Your task to perform on an android device: choose inbox layout in the gmail app Image 0: 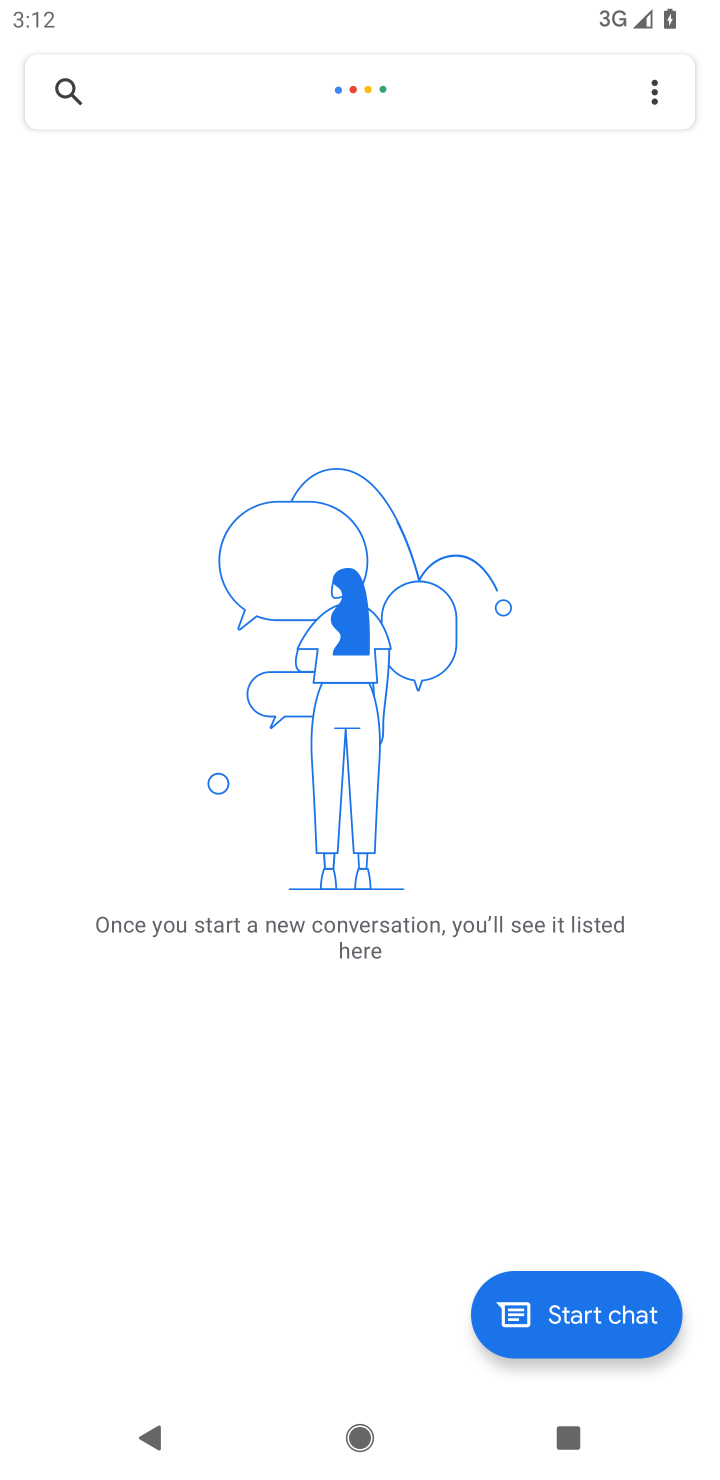
Step 0: press home button
Your task to perform on an android device: choose inbox layout in the gmail app Image 1: 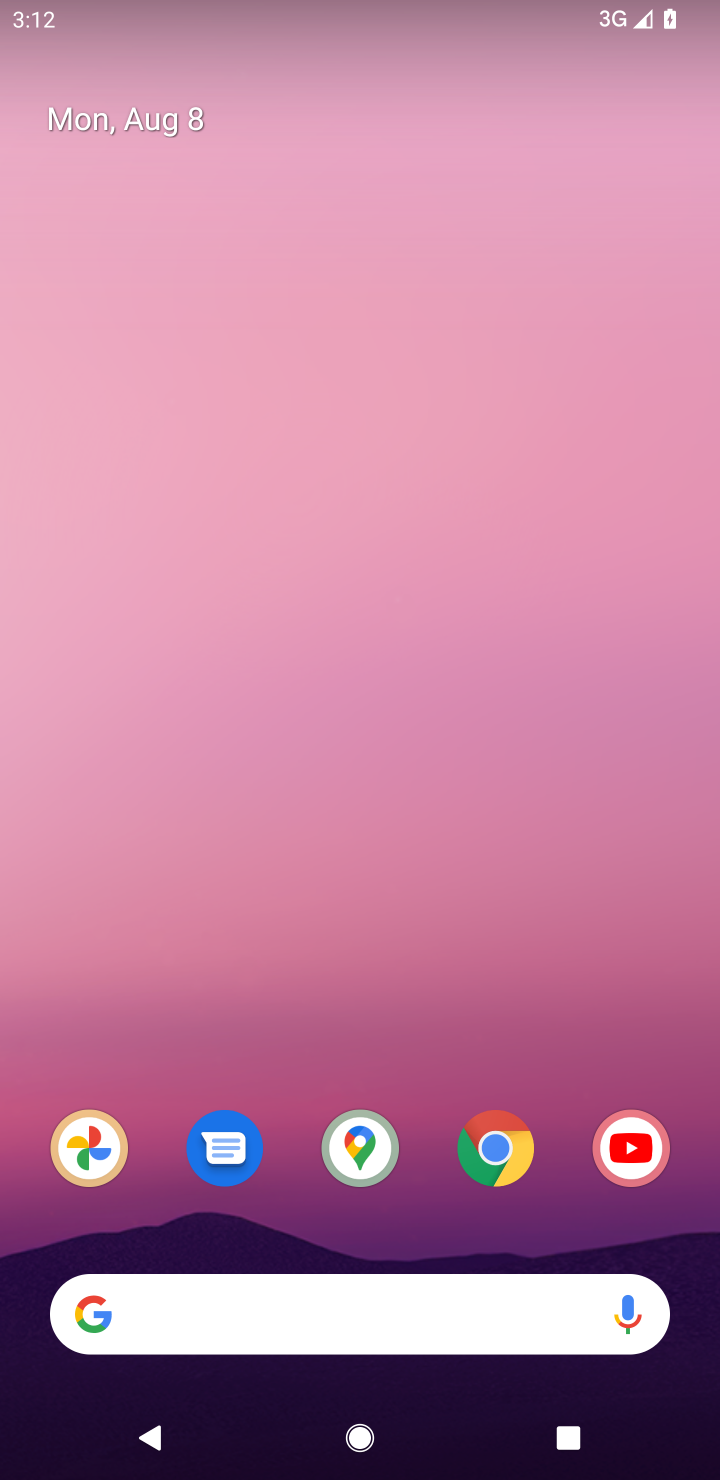
Step 1: drag from (353, 1068) to (328, 472)
Your task to perform on an android device: choose inbox layout in the gmail app Image 2: 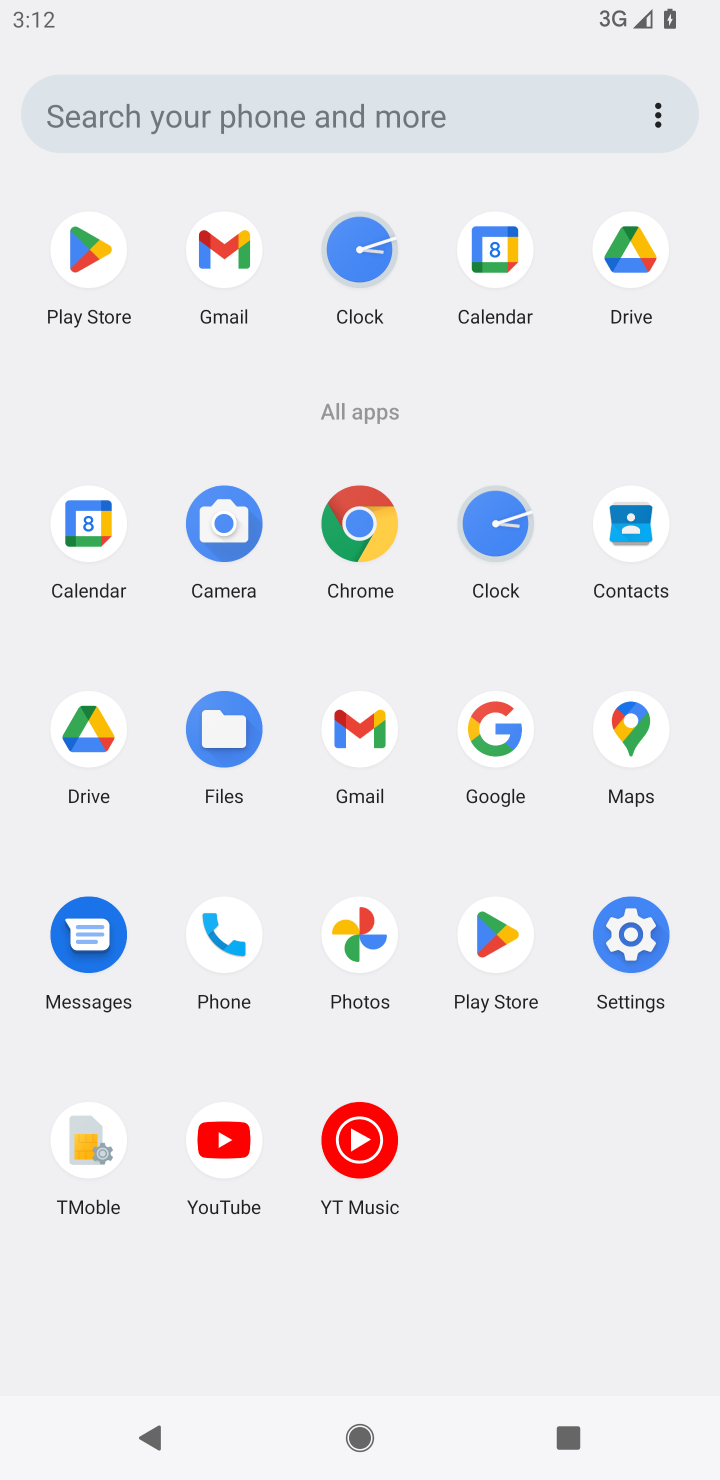
Step 2: click (362, 746)
Your task to perform on an android device: choose inbox layout in the gmail app Image 3: 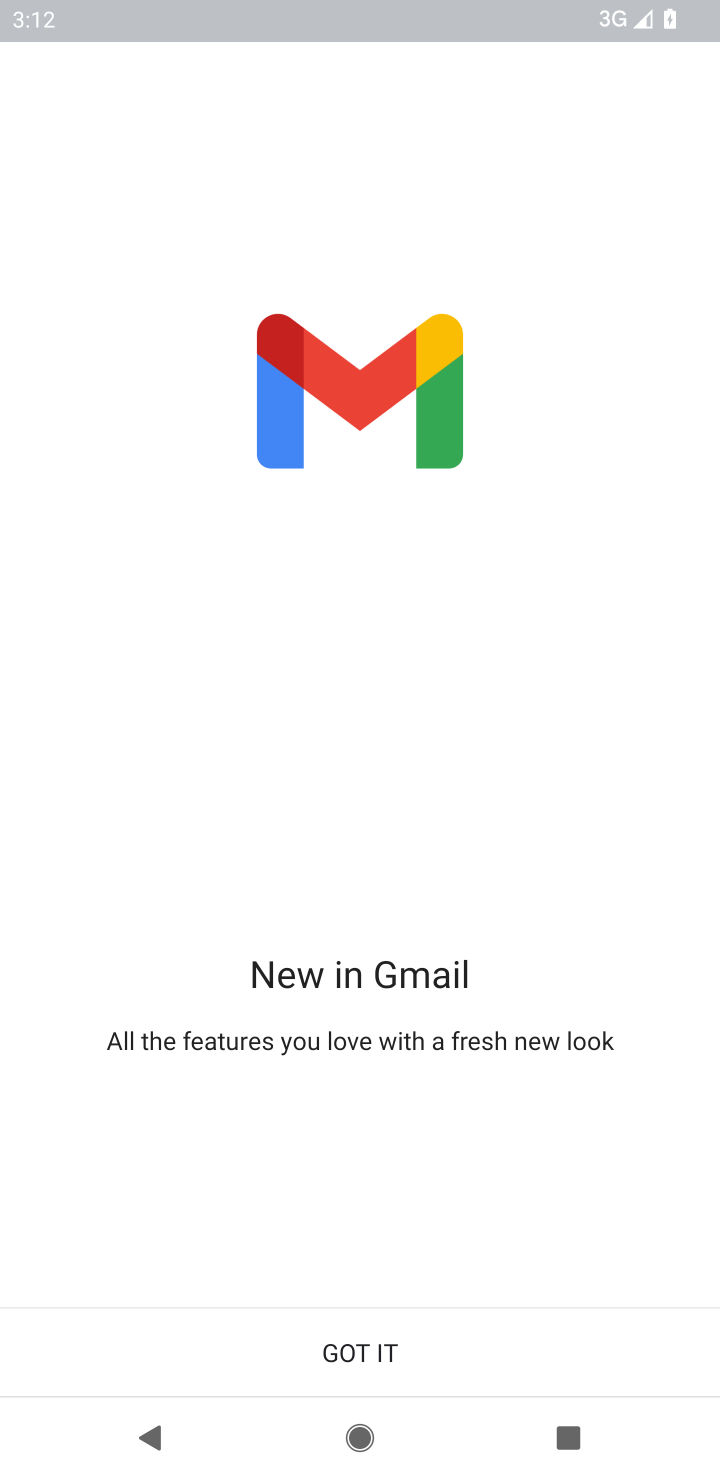
Step 3: click (381, 1338)
Your task to perform on an android device: choose inbox layout in the gmail app Image 4: 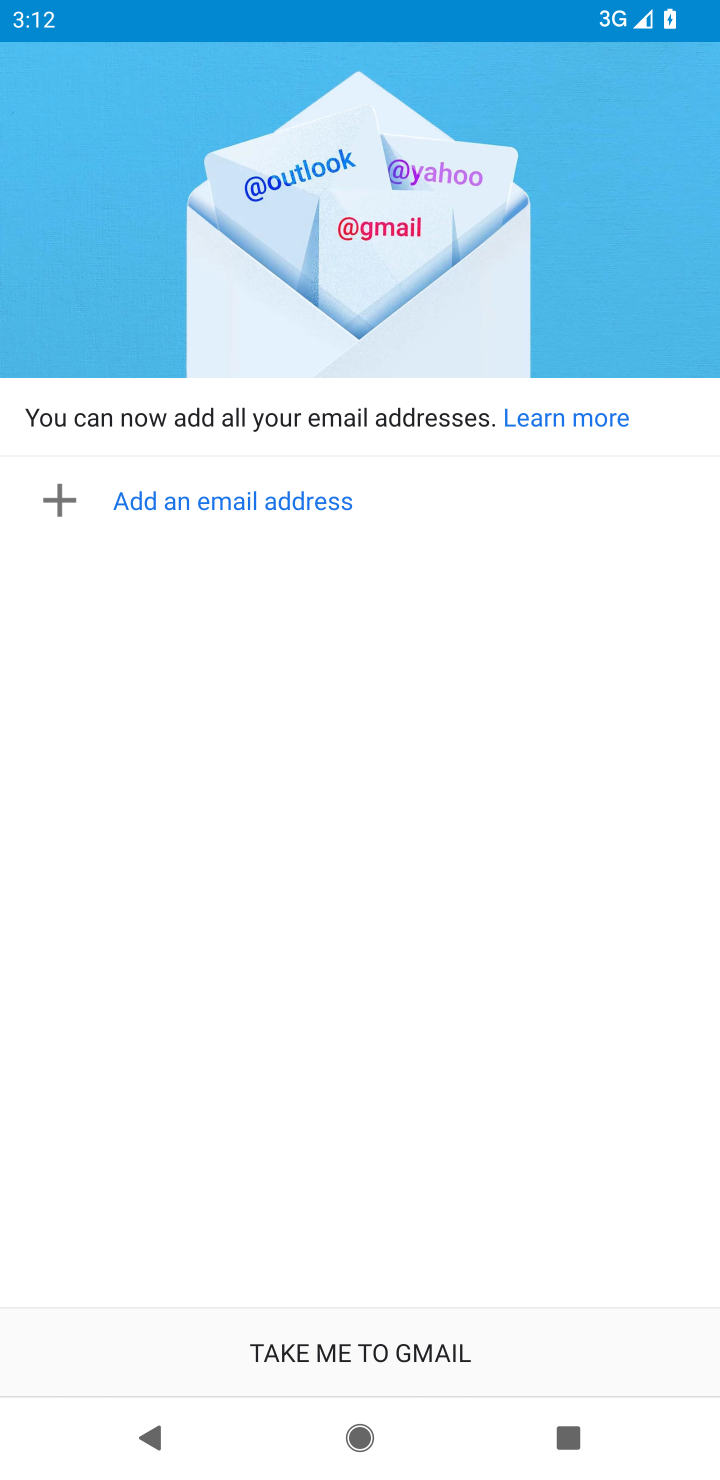
Step 4: click (381, 1338)
Your task to perform on an android device: choose inbox layout in the gmail app Image 5: 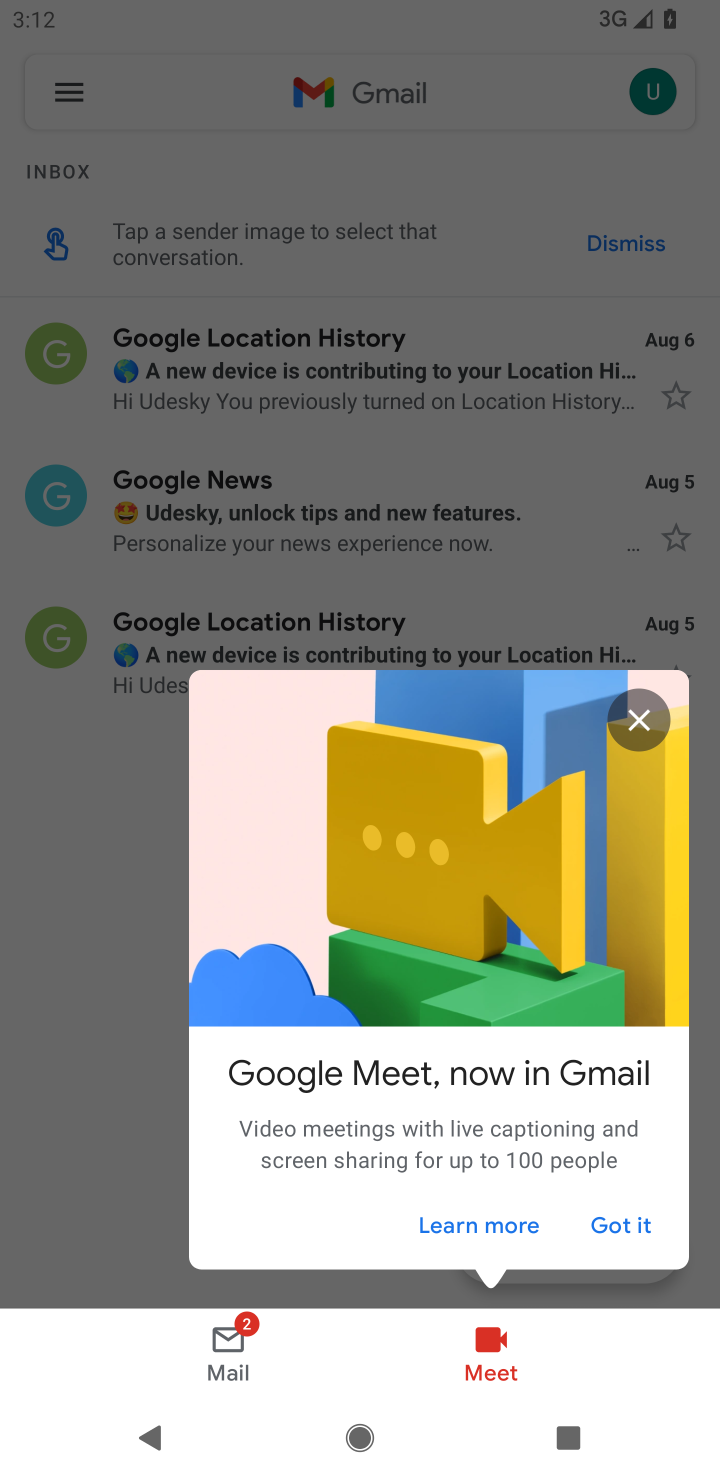
Step 5: click (85, 97)
Your task to perform on an android device: choose inbox layout in the gmail app Image 6: 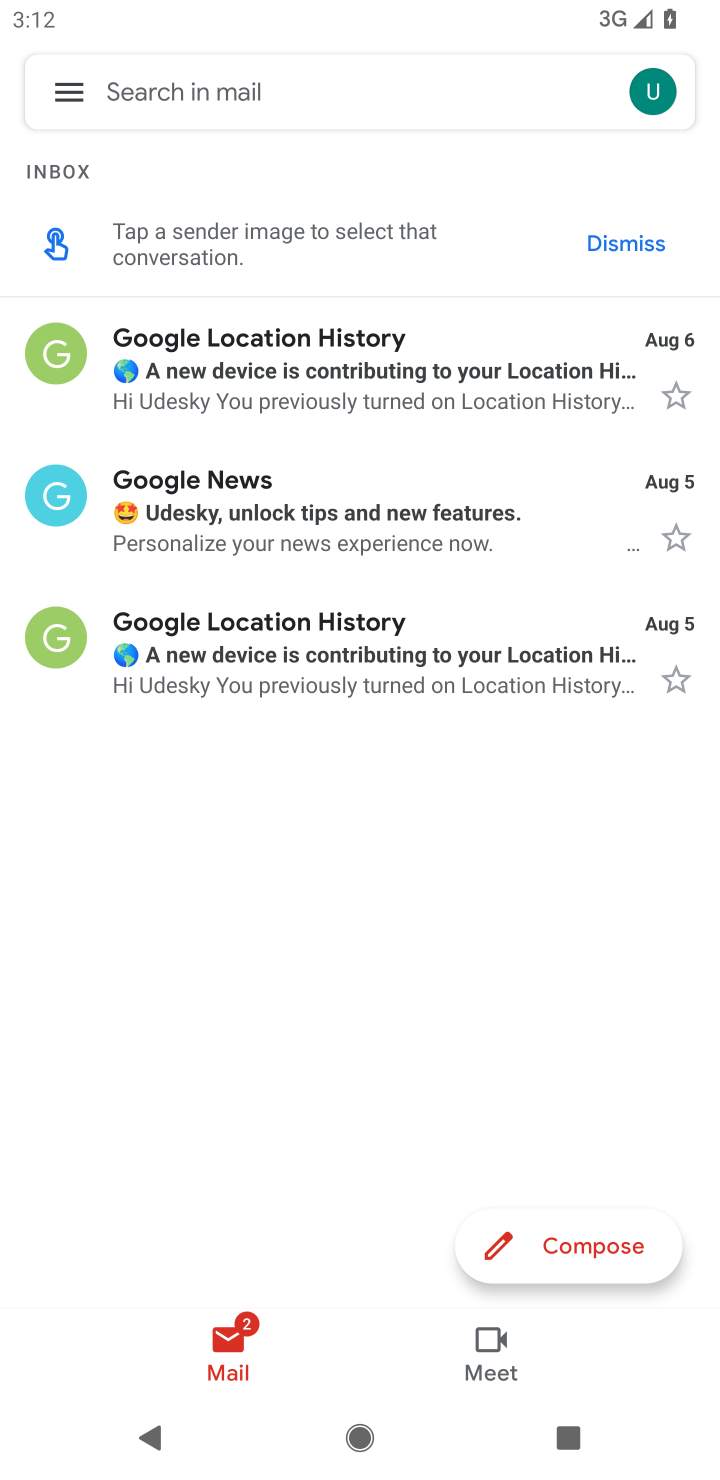
Step 6: click (85, 97)
Your task to perform on an android device: choose inbox layout in the gmail app Image 7: 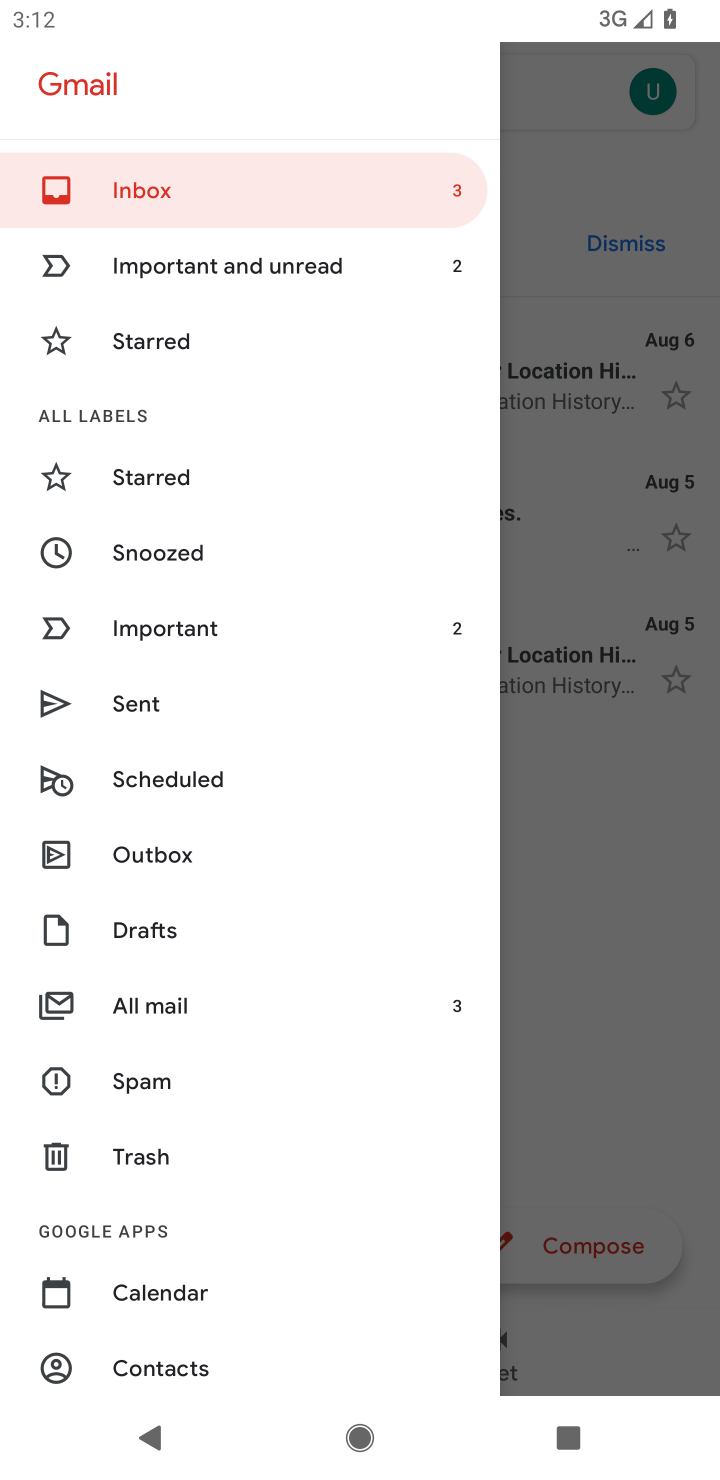
Step 7: drag from (186, 1197) to (194, 792)
Your task to perform on an android device: choose inbox layout in the gmail app Image 8: 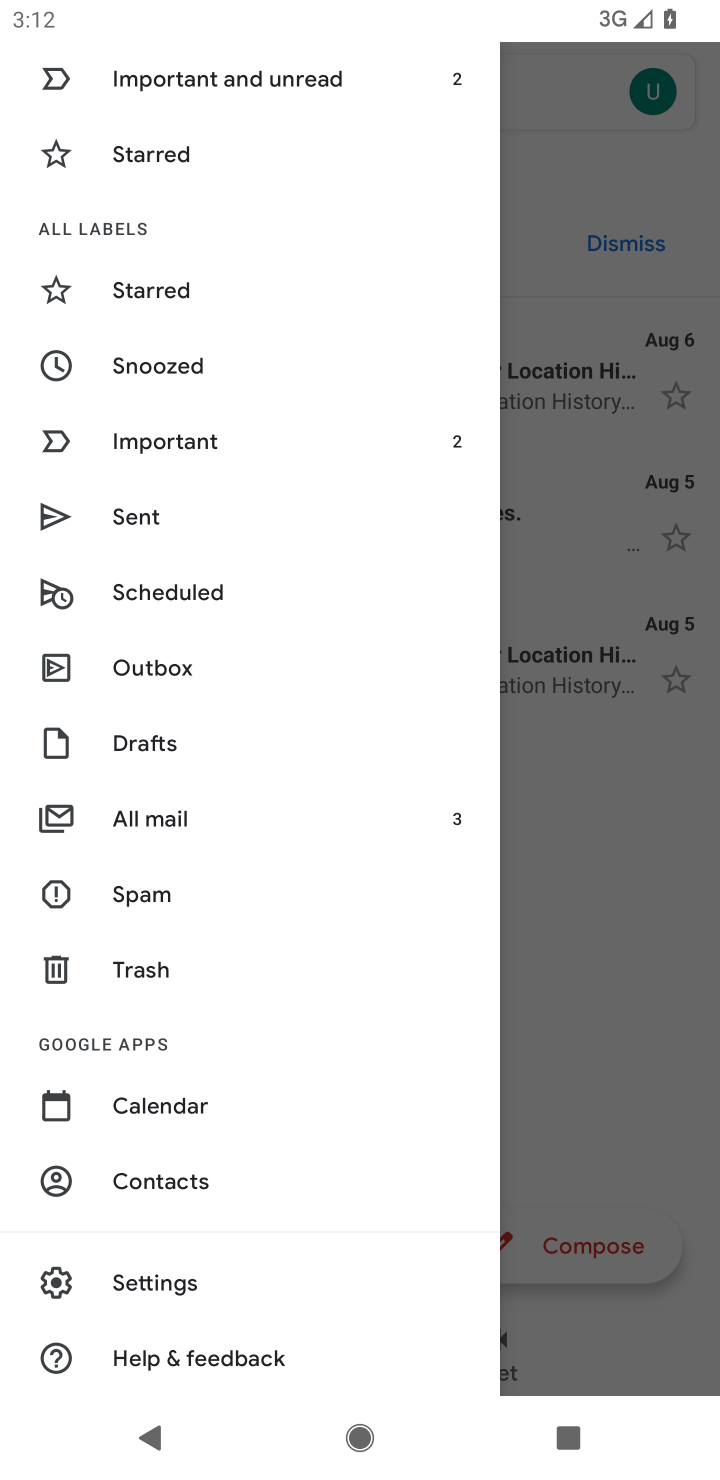
Step 8: click (180, 1292)
Your task to perform on an android device: choose inbox layout in the gmail app Image 9: 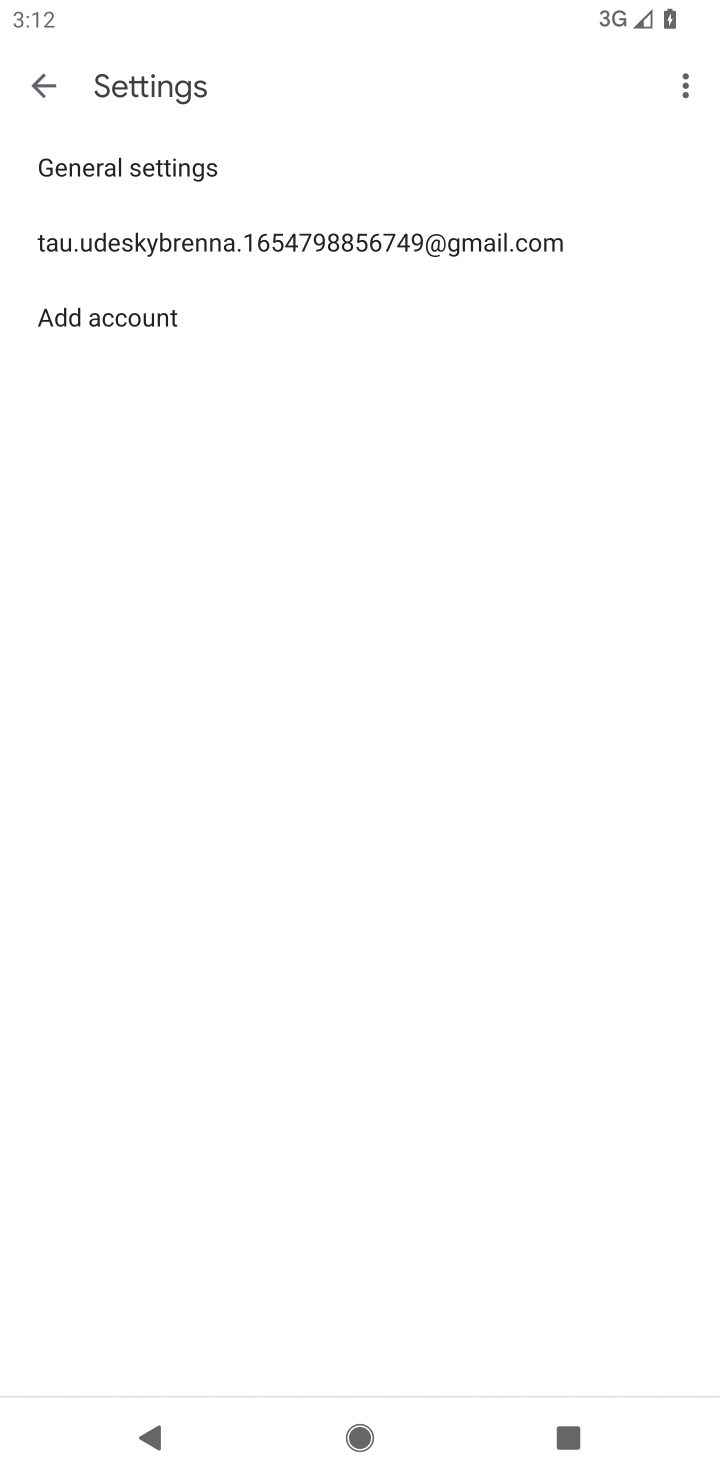
Step 9: click (510, 240)
Your task to perform on an android device: choose inbox layout in the gmail app Image 10: 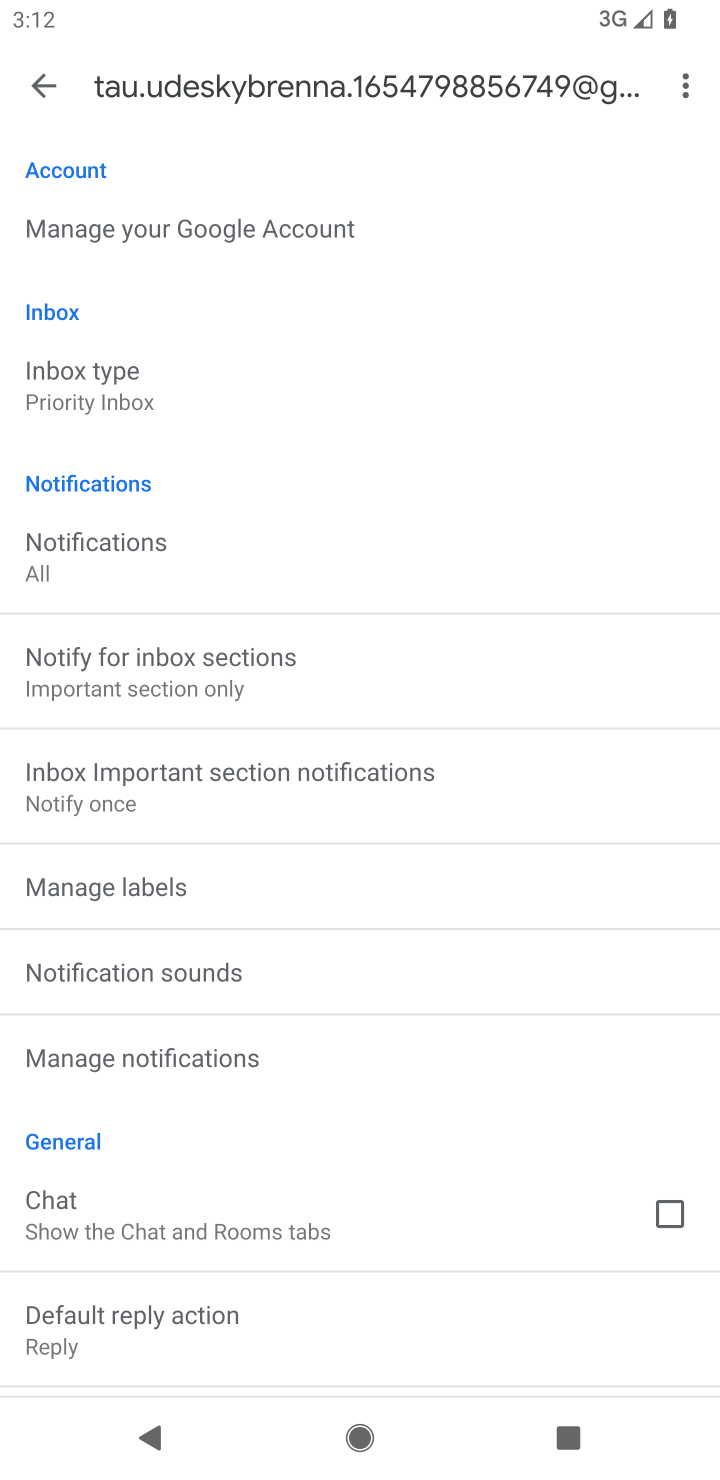
Step 10: click (146, 361)
Your task to perform on an android device: choose inbox layout in the gmail app Image 11: 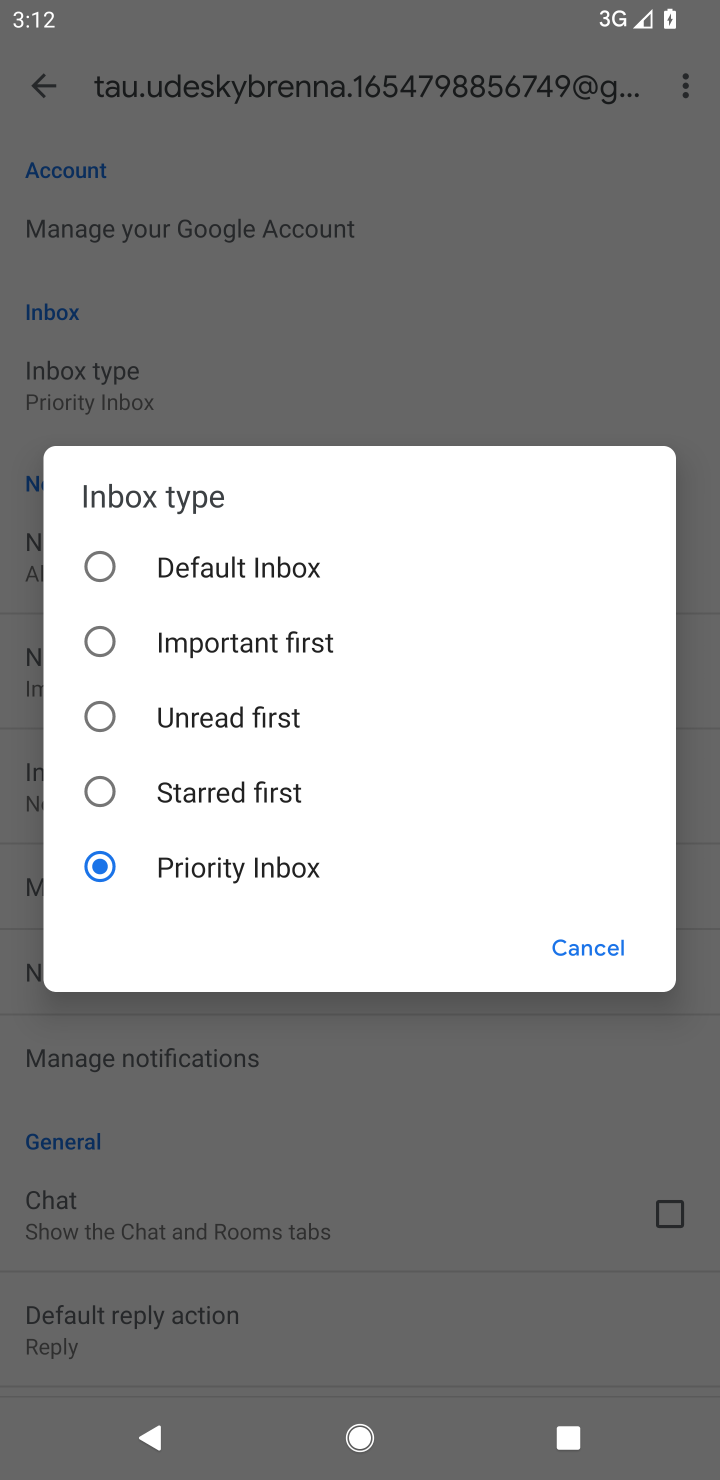
Step 11: click (220, 559)
Your task to perform on an android device: choose inbox layout in the gmail app Image 12: 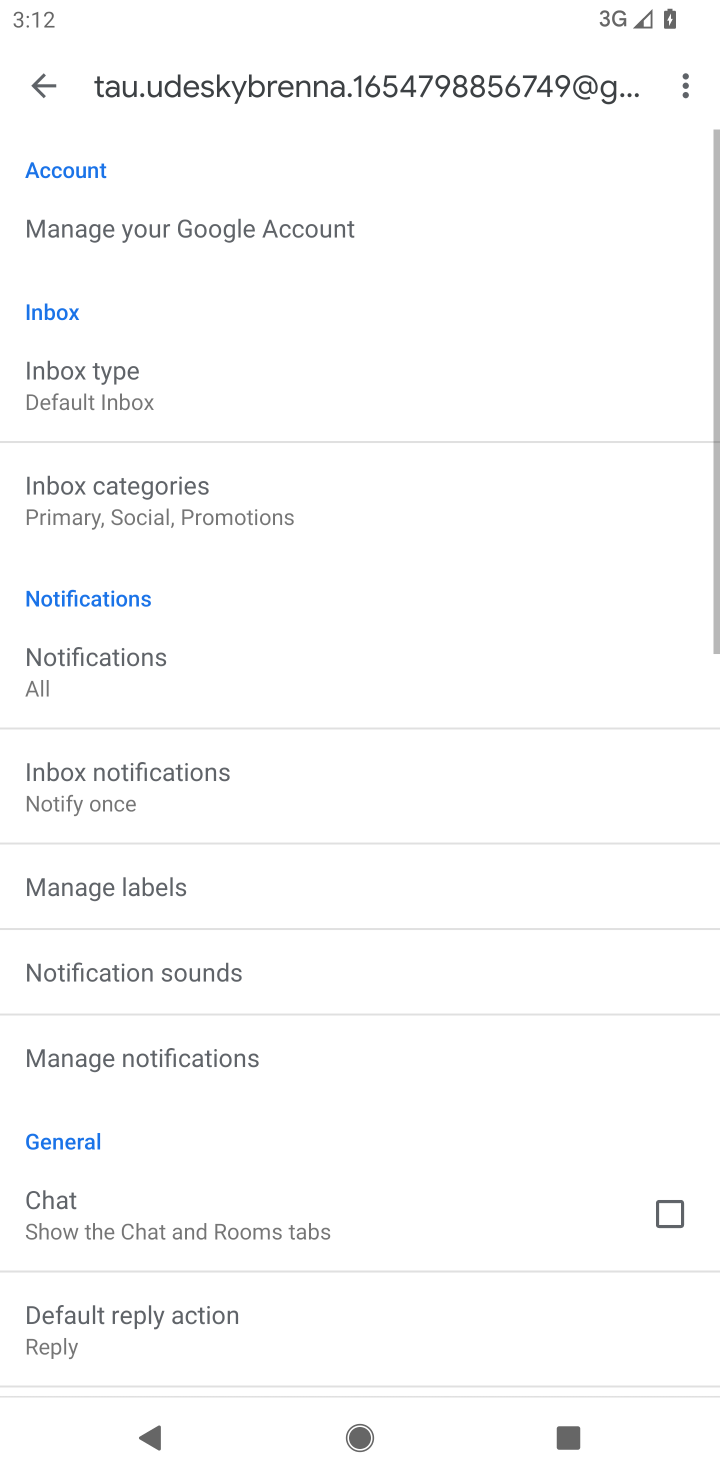
Step 12: task complete